Your task to perform on an android device: turn smart compose on in the gmail app Image 0: 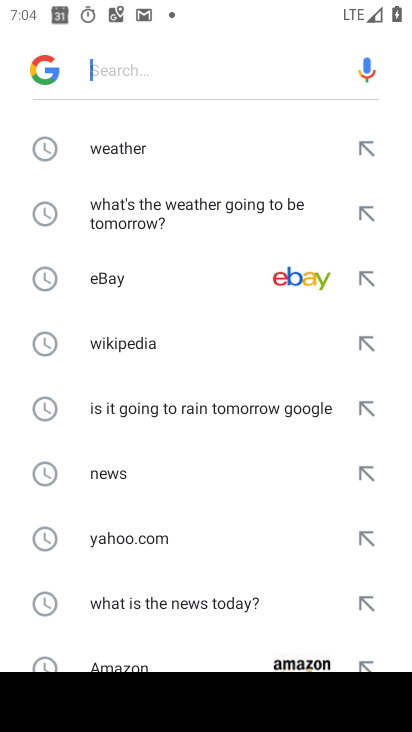
Step 0: press home button
Your task to perform on an android device: turn smart compose on in the gmail app Image 1: 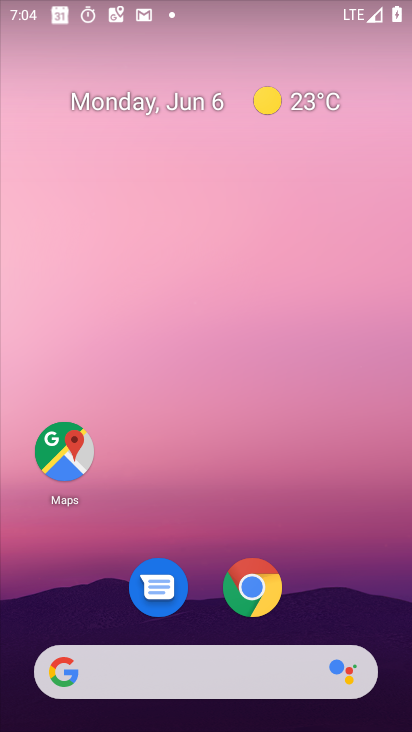
Step 1: drag from (383, 671) to (261, 30)
Your task to perform on an android device: turn smart compose on in the gmail app Image 2: 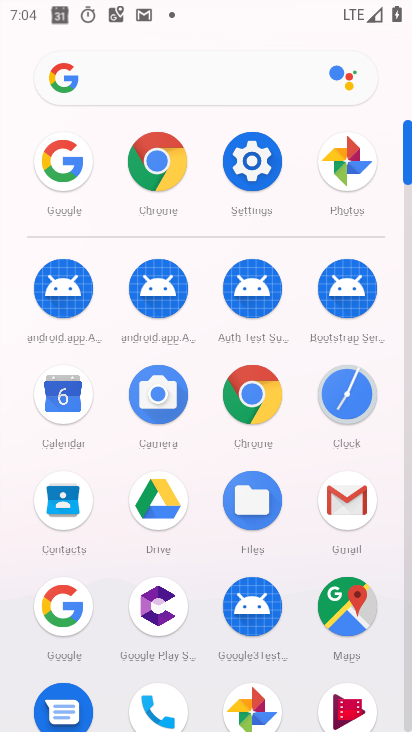
Step 2: click (348, 487)
Your task to perform on an android device: turn smart compose on in the gmail app Image 3: 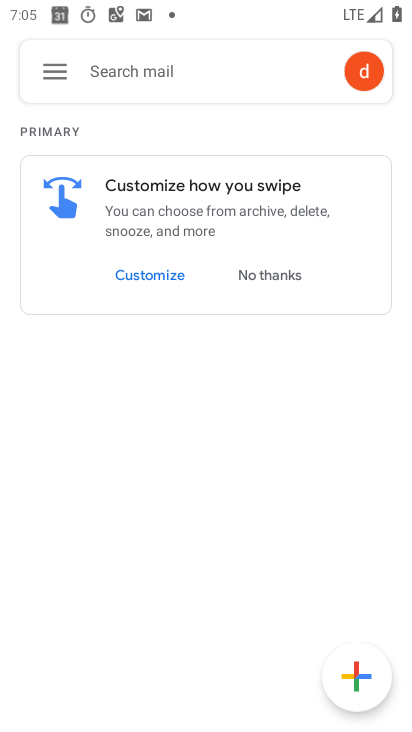
Step 3: click (47, 89)
Your task to perform on an android device: turn smart compose on in the gmail app Image 4: 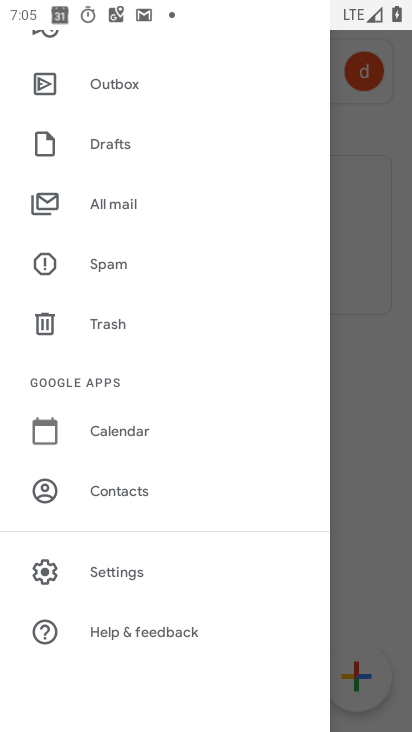
Step 4: click (169, 565)
Your task to perform on an android device: turn smart compose on in the gmail app Image 5: 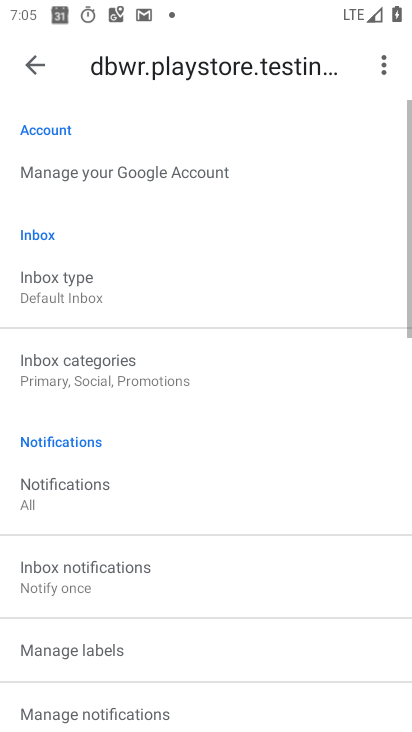
Step 5: task complete